Your task to perform on an android device: open the mobile data screen to see how much data has been used Image 0: 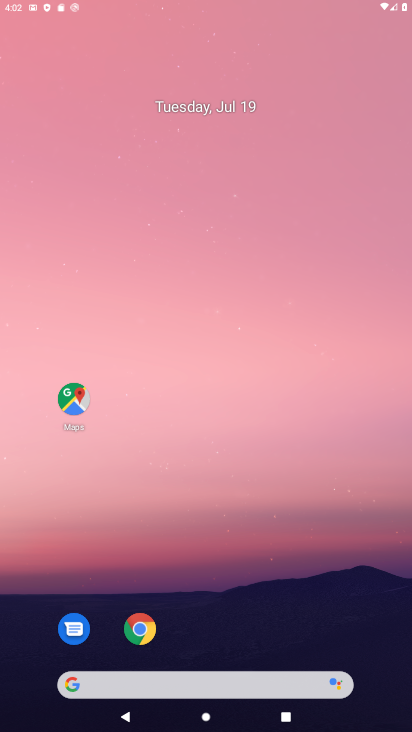
Step 0: click (348, 131)
Your task to perform on an android device: open the mobile data screen to see how much data has been used Image 1: 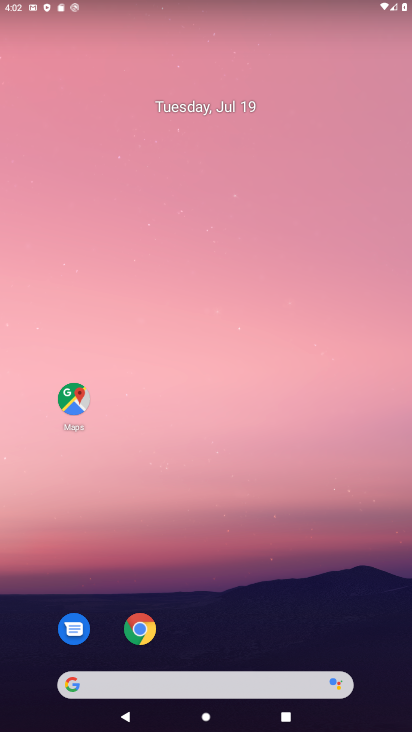
Step 1: drag from (213, 422) to (175, 193)
Your task to perform on an android device: open the mobile data screen to see how much data has been used Image 2: 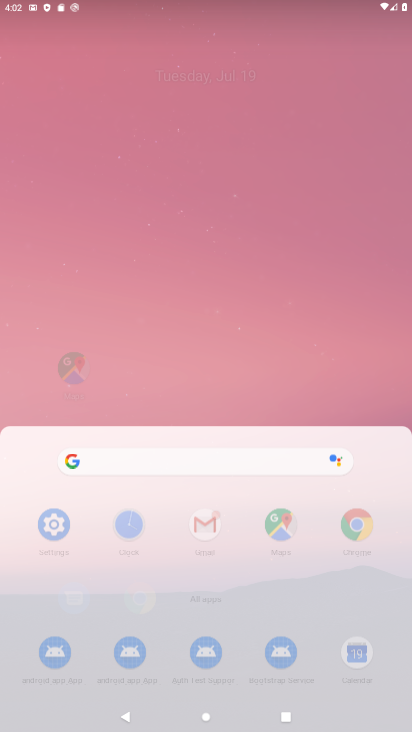
Step 2: drag from (245, 492) to (215, 208)
Your task to perform on an android device: open the mobile data screen to see how much data has been used Image 3: 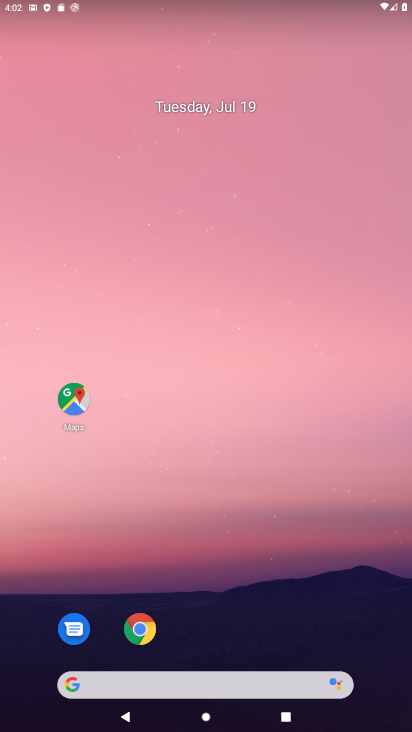
Step 3: drag from (235, 515) to (219, 111)
Your task to perform on an android device: open the mobile data screen to see how much data has been used Image 4: 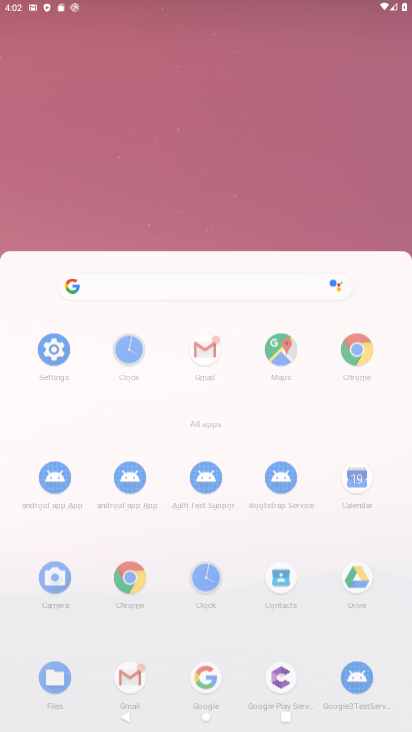
Step 4: drag from (233, 469) to (222, 54)
Your task to perform on an android device: open the mobile data screen to see how much data has been used Image 5: 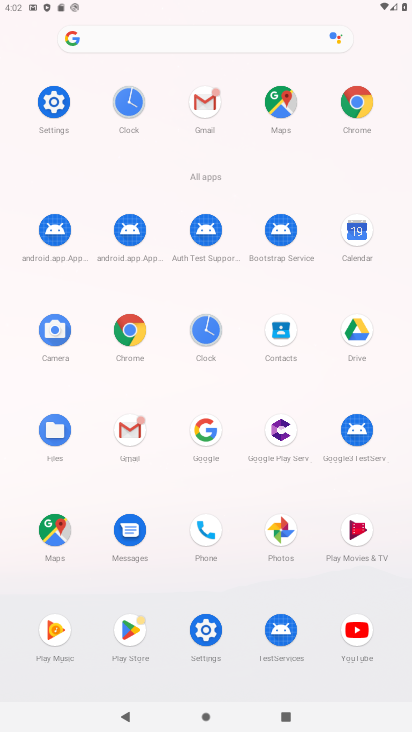
Step 5: click (56, 101)
Your task to perform on an android device: open the mobile data screen to see how much data has been used Image 6: 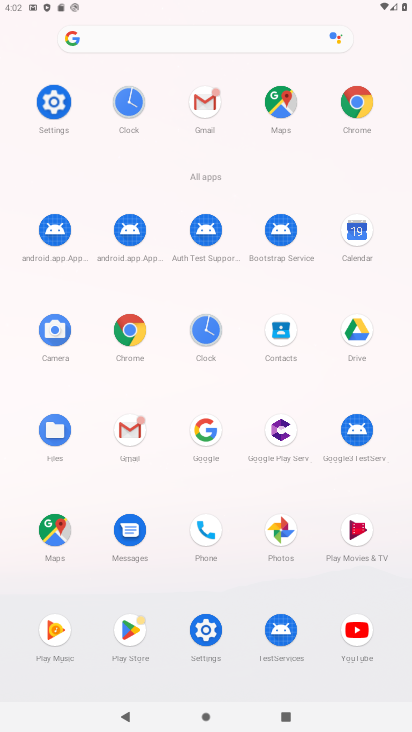
Step 6: click (56, 101)
Your task to perform on an android device: open the mobile data screen to see how much data has been used Image 7: 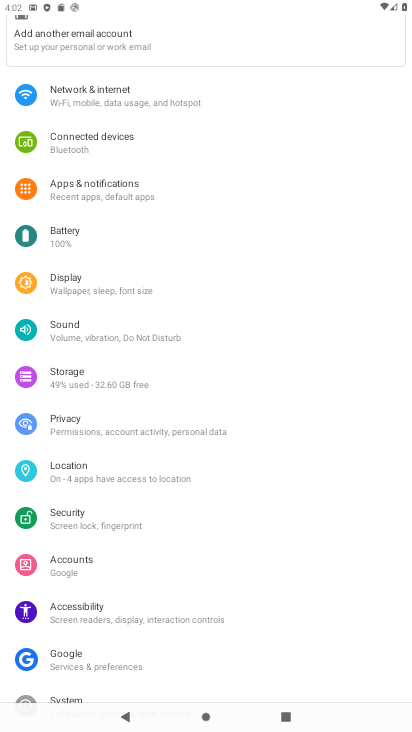
Step 7: click (99, 89)
Your task to perform on an android device: open the mobile data screen to see how much data has been used Image 8: 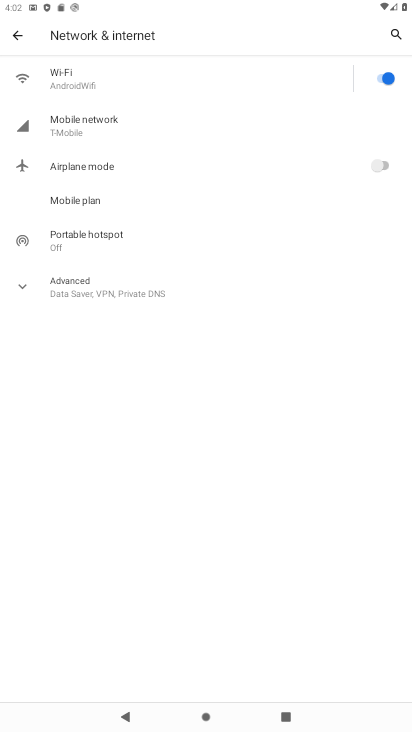
Step 8: click (69, 130)
Your task to perform on an android device: open the mobile data screen to see how much data has been used Image 9: 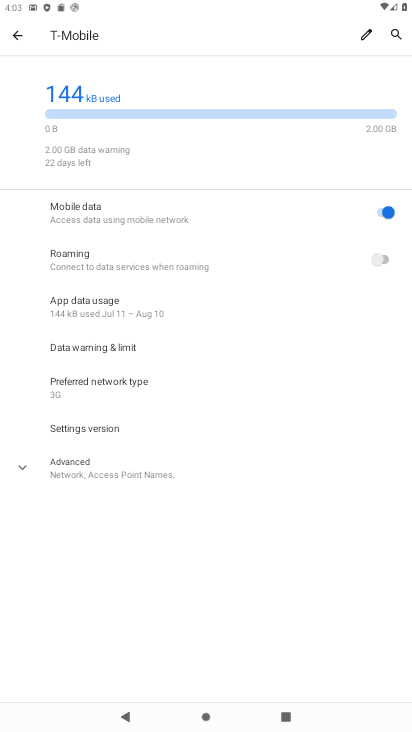
Step 9: click (14, 32)
Your task to perform on an android device: open the mobile data screen to see how much data has been used Image 10: 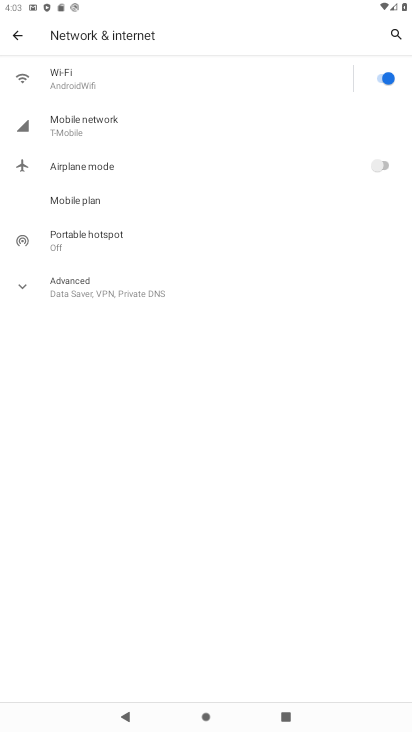
Step 10: click (25, 31)
Your task to perform on an android device: open the mobile data screen to see how much data has been used Image 11: 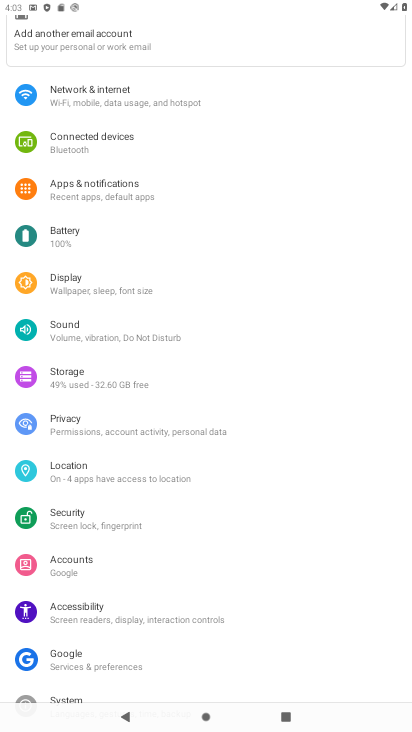
Step 11: click (71, 286)
Your task to perform on an android device: open the mobile data screen to see how much data has been used Image 12: 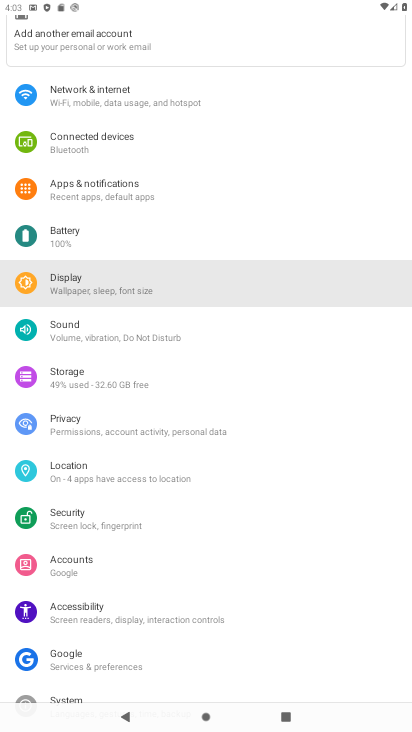
Step 12: click (78, 296)
Your task to perform on an android device: open the mobile data screen to see how much data has been used Image 13: 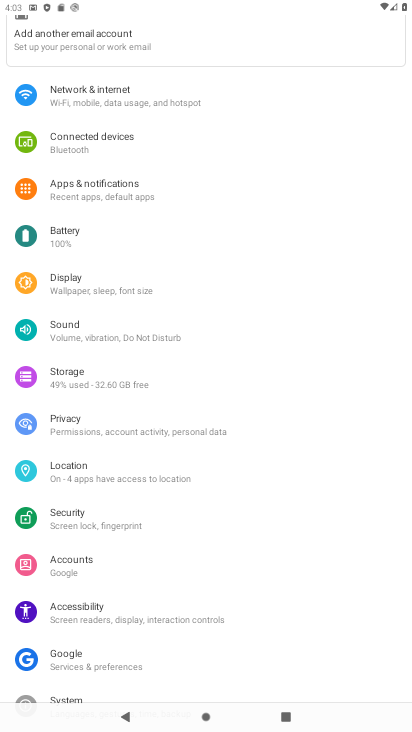
Step 13: click (79, 297)
Your task to perform on an android device: open the mobile data screen to see how much data has been used Image 14: 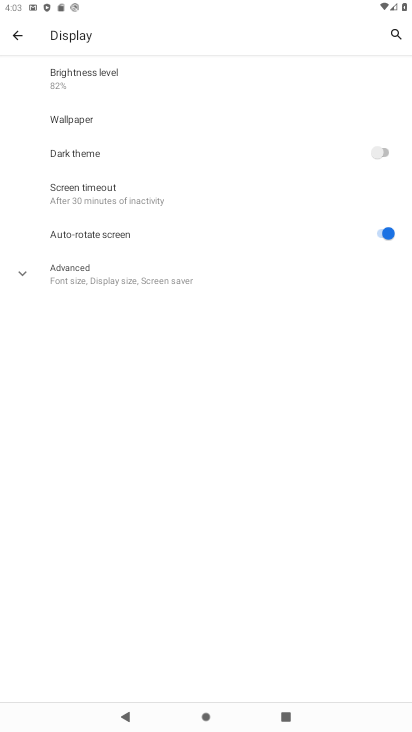
Step 14: click (74, 270)
Your task to perform on an android device: open the mobile data screen to see how much data has been used Image 15: 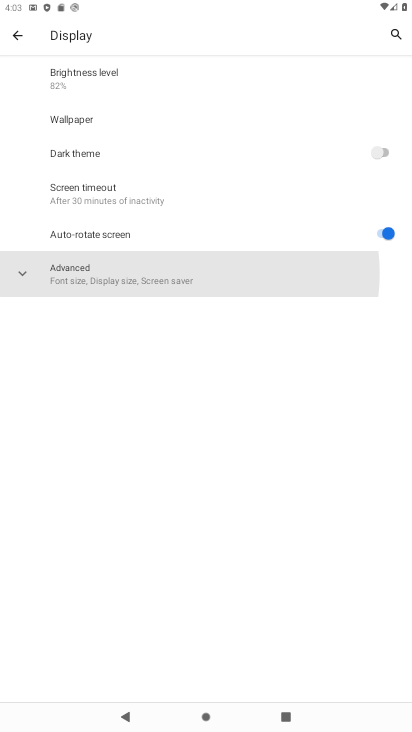
Step 15: click (74, 271)
Your task to perform on an android device: open the mobile data screen to see how much data has been used Image 16: 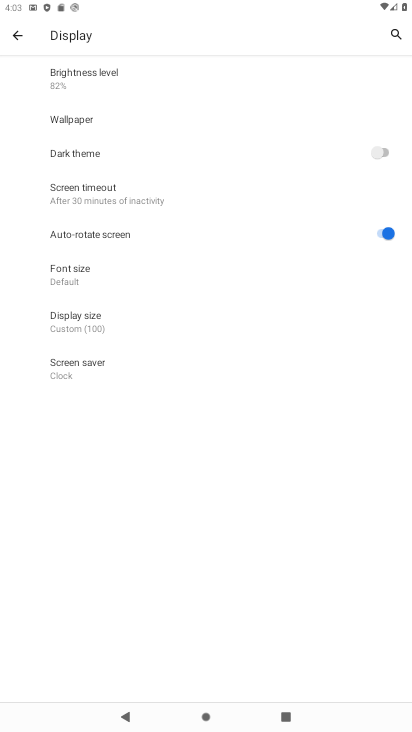
Step 16: click (68, 279)
Your task to perform on an android device: open the mobile data screen to see how much data has been used Image 17: 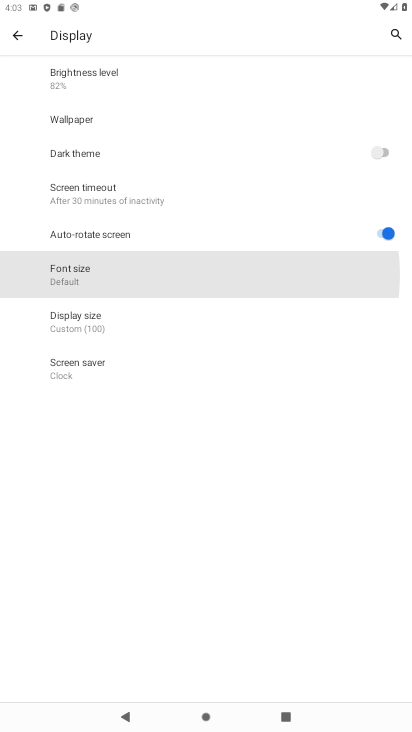
Step 17: click (72, 283)
Your task to perform on an android device: open the mobile data screen to see how much data has been used Image 18: 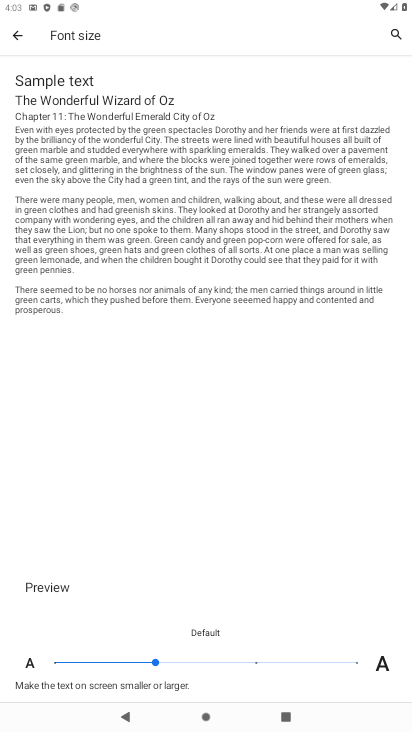
Step 18: click (363, 660)
Your task to perform on an android device: open the mobile data screen to see how much data has been used Image 19: 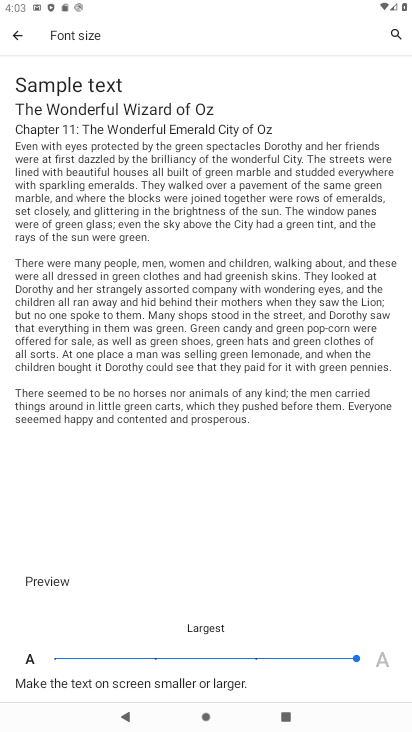
Step 19: press back button
Your task to perform on an android device: open the mobile data screen to see how much data has been used Image 20: 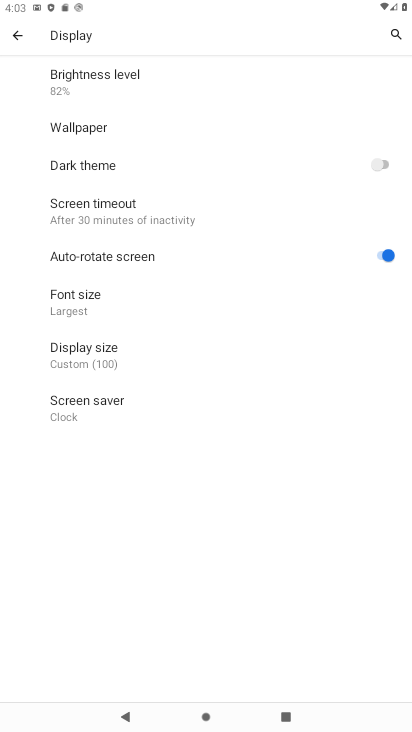
Step 20: click (20, 38)
Your task to perform on an android device: open the mobile data screen to see how much data has been used Image 21: 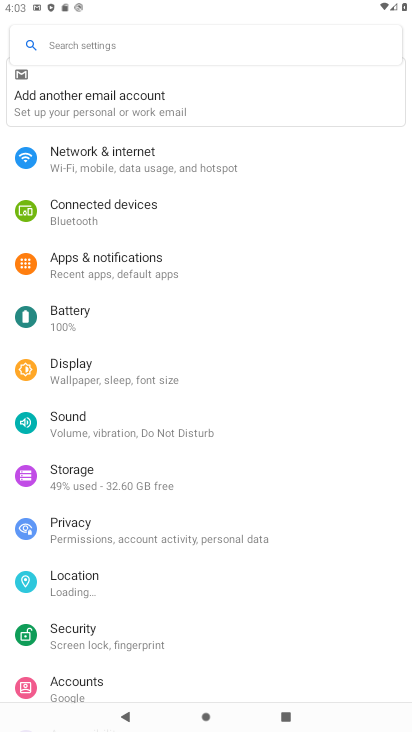
Step 21: click (104, 161)
Your task to perform on an android device: open the mobile data screen to see how much data has been used Image 22: 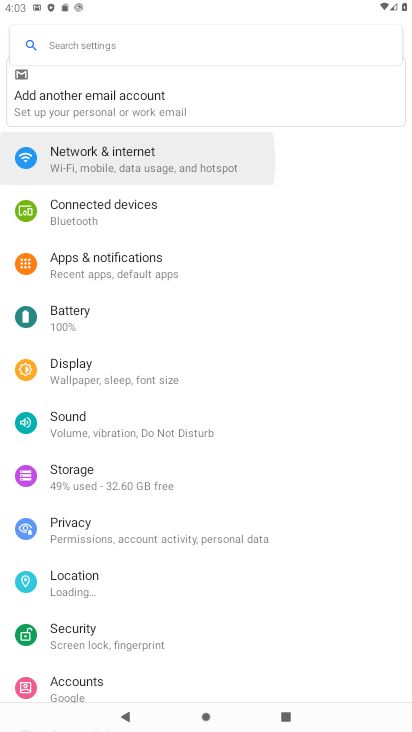
Step 22: click (104, 161)
Your task to perform on an android device: open the mobile data screen to see how much data has been used Image 23: 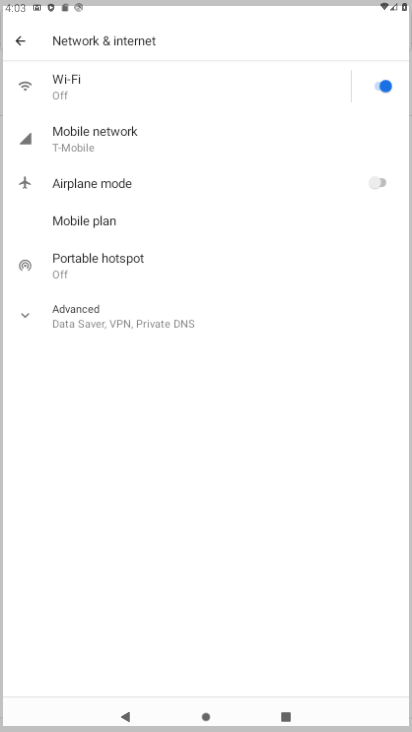
Step 23: click (103, 160)
Your task to perform on an android device: open the mobile data screen to see how much data has been used Image 24: 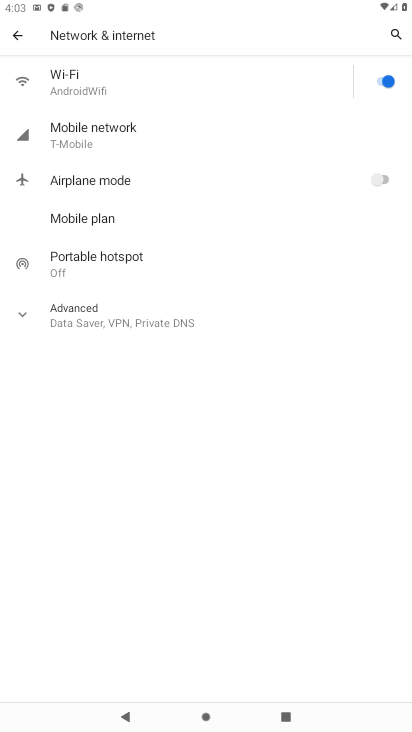
Step 24: click (72, 129)
Your task to perform on an android device: open the mobile data screen to see how much data has been used Image 25: 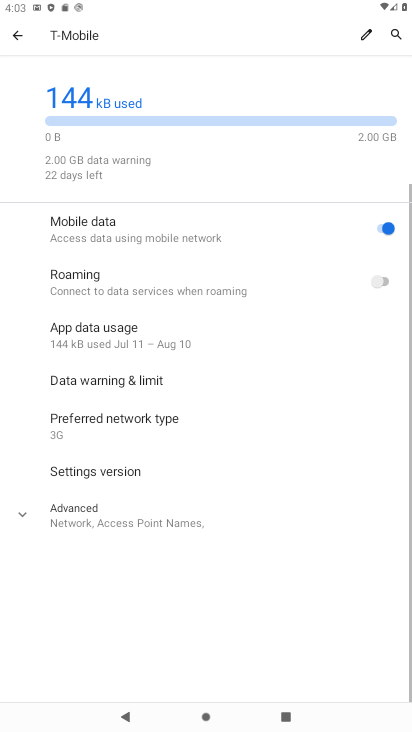
Step 25: click (78, 137)
Your task to perform on an android device: open the mobile data screen to see how much data has been used Image 26: 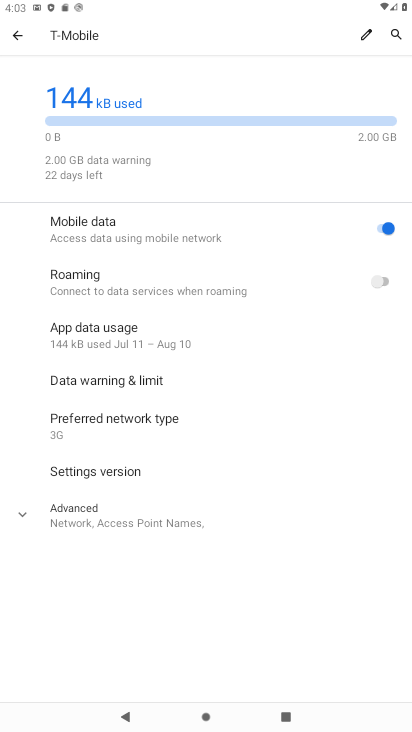
Step 26: click (22, 32)
Your task to perform on an android device: open the mobile data screen to see how much data has been used Image 27: 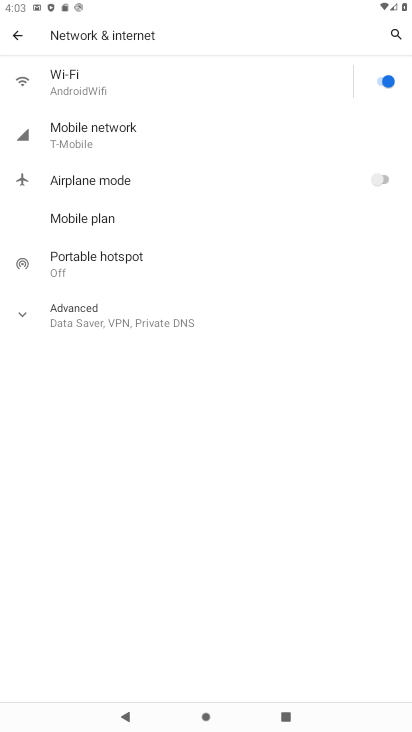
Step 27: task complete